Your task to perform on an android device: turn off location Image 0: 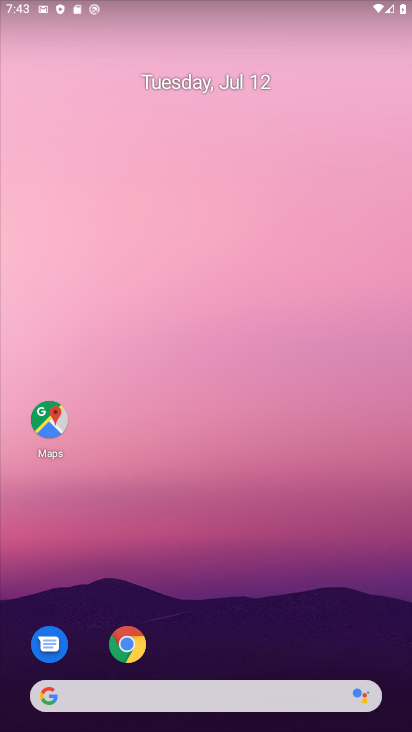
Step 0: drag from (192, 632) to (185, 148)
Your task to perform on an android device: turn off location Image 1: 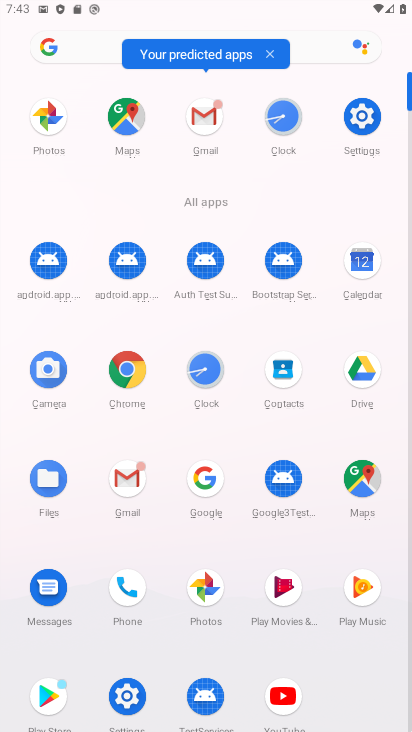
Step 1: click (342, 128)
Your task to perform on an android device: turn off location Image 2: 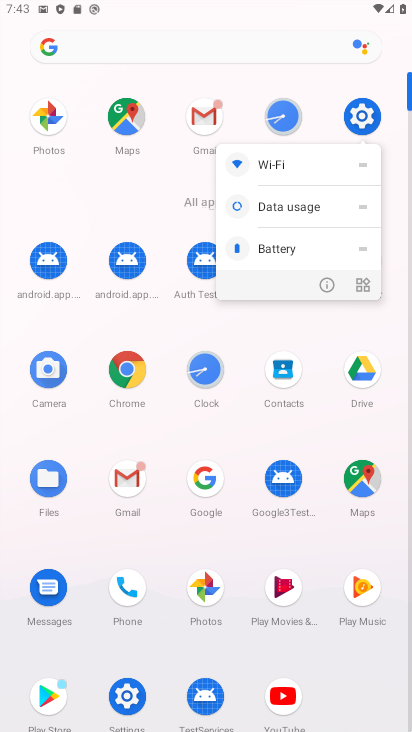
Step 2: click (367, 107)
Your task to perform on an android device: turn off location Image 3: 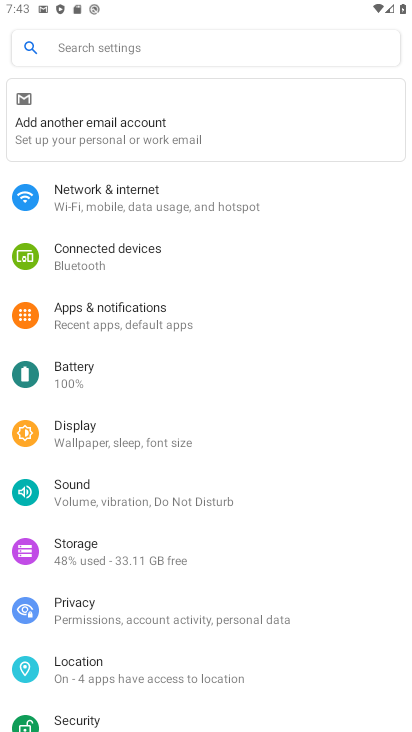
Step 3: click (118, 667)
Your task to perform on an android device: turn off location Image 4: 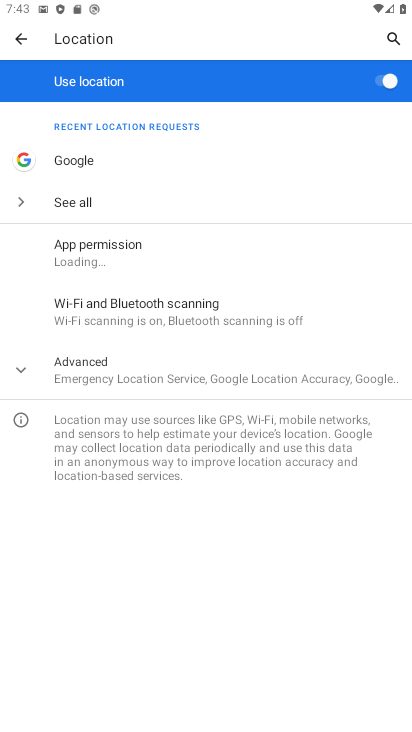
Step 4: click (383, 72)
Your task to perform on an android device: turn off location Image 5: 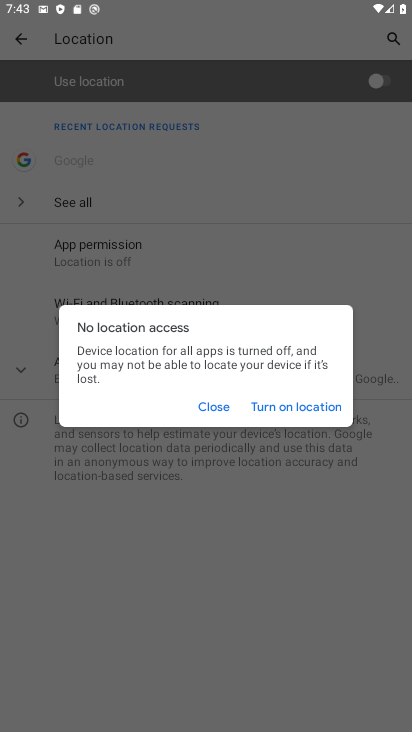
Step 5: task complete